Your task to perform on an android device: Turn off the flashlight Image 0: 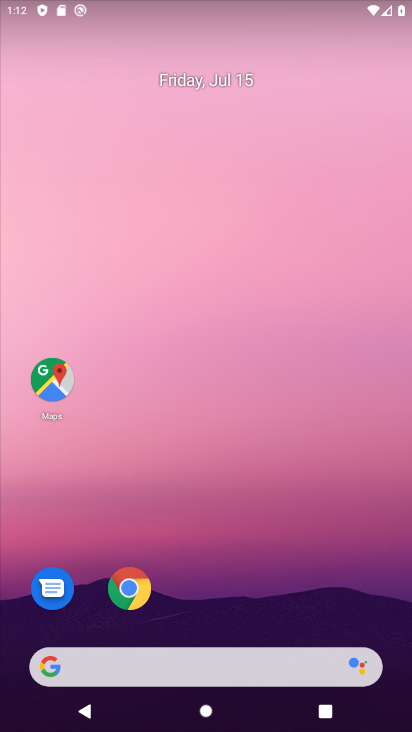
Step 0: drag from (290, 595) to (331, 61)
Your task to perform on an android device: Turn off the flashlight Image 1: 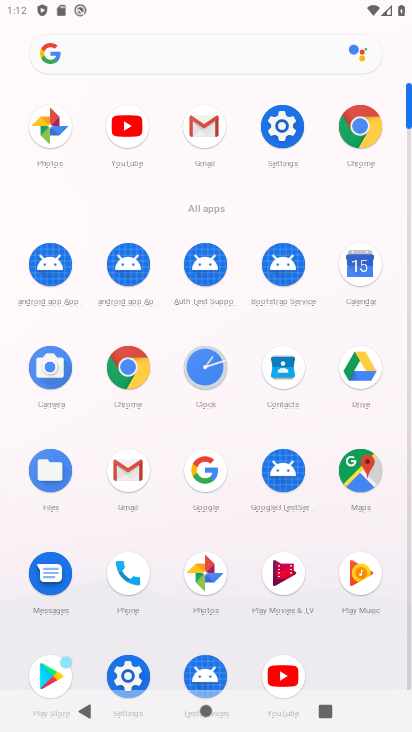
Step 1: click (130, 672)
Your task to perform on an android device: Turn off the flashlight Image 2: 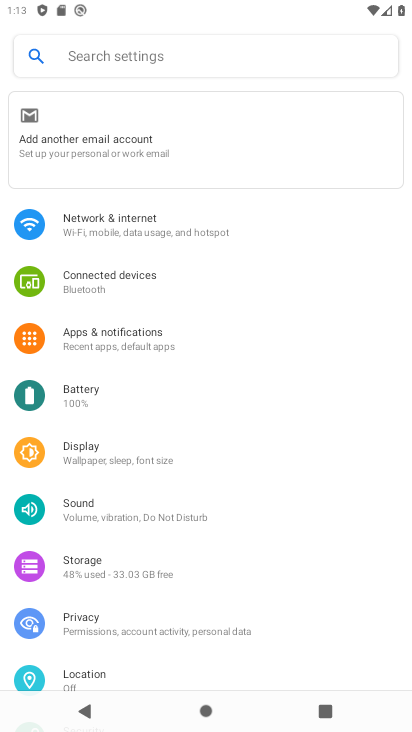
Step 2: task complete